Your task to perform on an android device: turn vacation reply on in the gmail app Image 0: 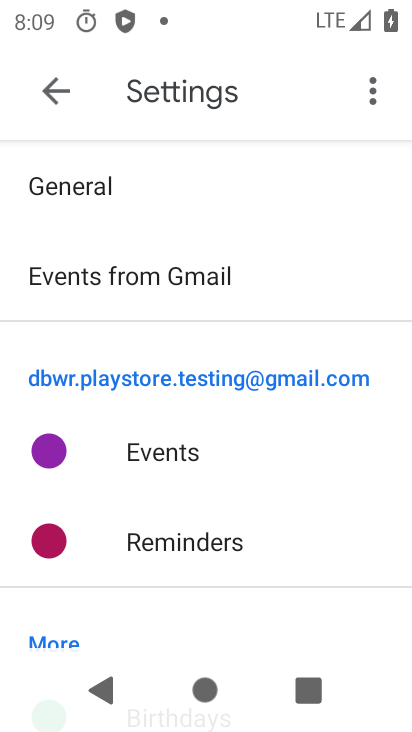
Step 0: press home button
Your task to perform on an android device: turn vacation reply on in the gmail app Image 1: 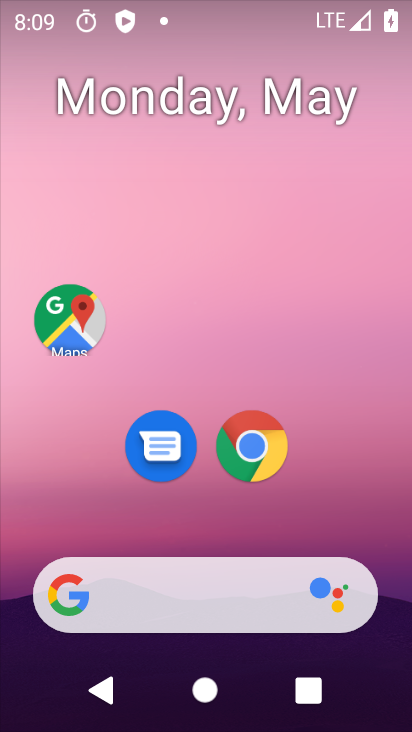
Step 1: drag from (350, 529) to (292, 3)
Your task to perform on an android device: turn vacation reply on in the gmail app Image 2: 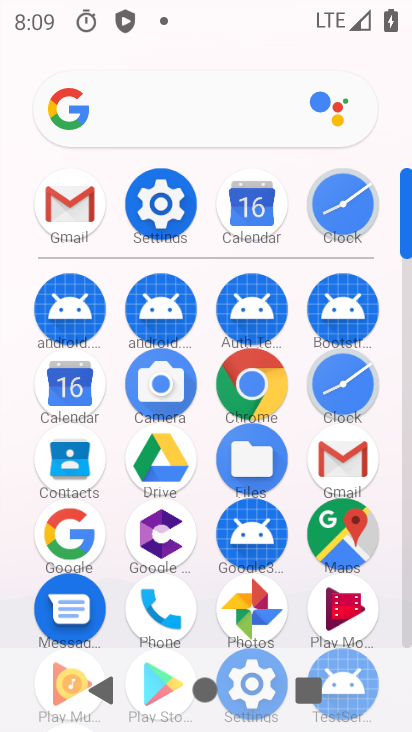
Step 2: click (65, 208)
Your task to perform on an android device: turn vacation reply on in the gmail app Image 3: 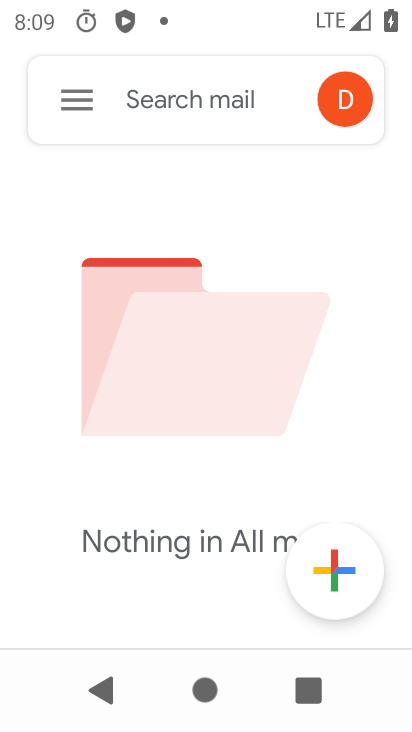
Step 3: click (75, 99)
Your task to perform on an android device: turn vacation reply on in the gmail app Image 4: 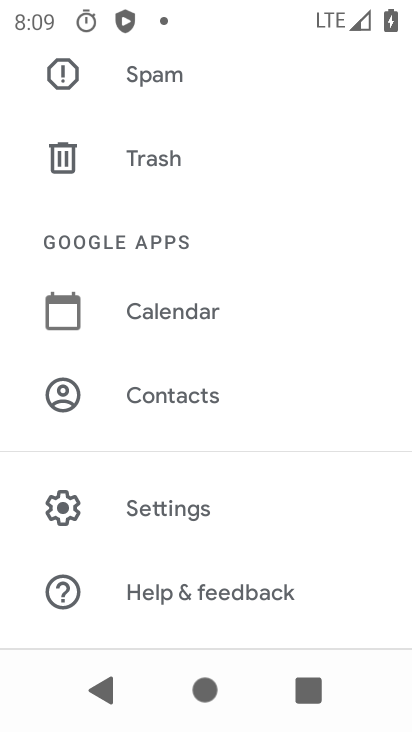
Step 4: click (115, 493)
Your task to perform on an android device: turn vacation reply on in the gmail app Image 5: 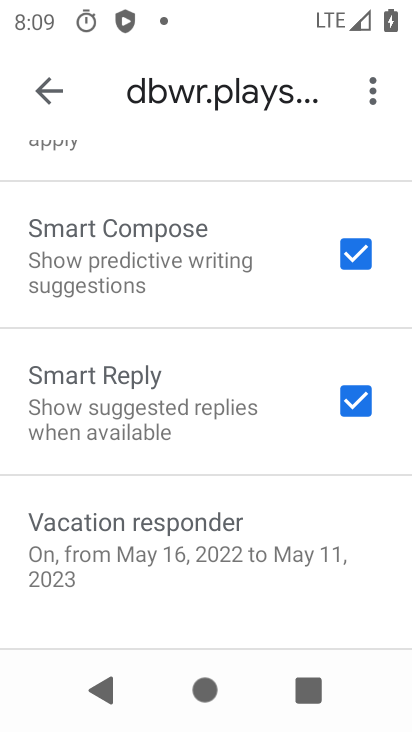
Step 5: click (110, 520)
Your task to perform on an android device: turn vacation reply on in the gmail app Image 6: 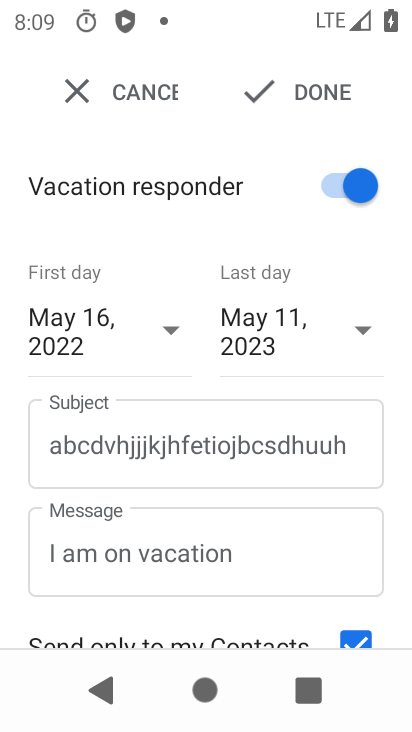
Step 6: click (325, 90)
Your task to perform on an android device: turn vacation reply on in the gmail app Image 7: 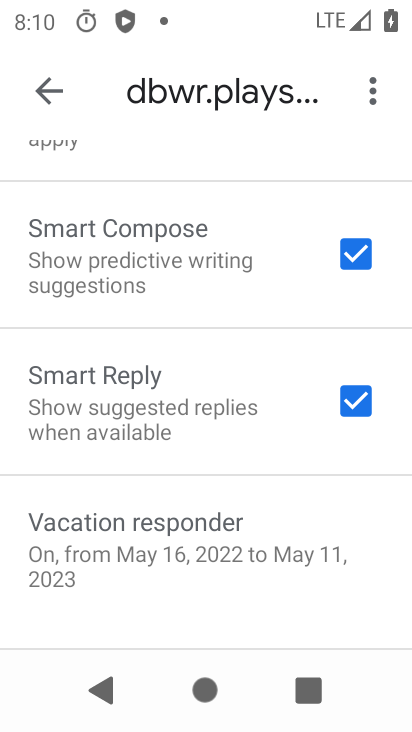
Step 7: task complete